Your task to perform on an android device: Search for seafood restaurants on Google Maps Image 0: 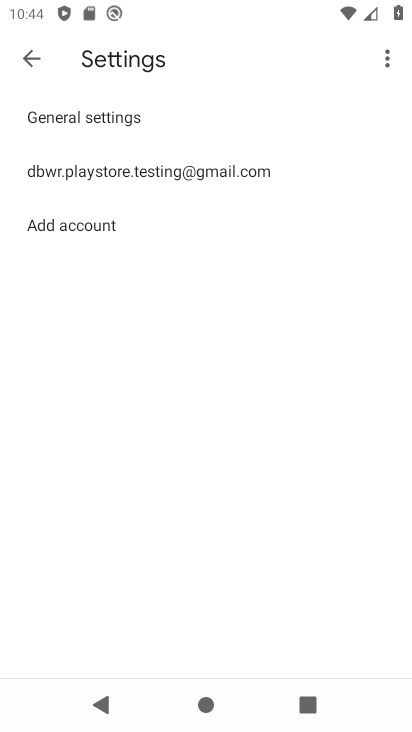
Step 0: press home button
Your task to perform on an android device: Search for seafood restaurants on Google Maps Image 1: 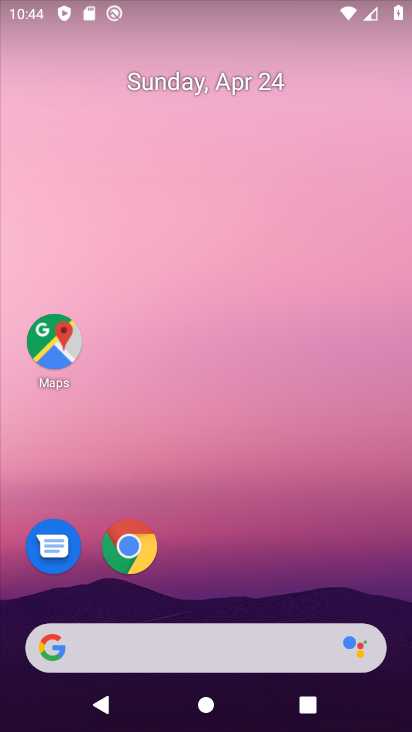
Step 1: click (50, 352)
Your task to perform on an android device: Search for seafood restaurants on Google Maps Image 2: 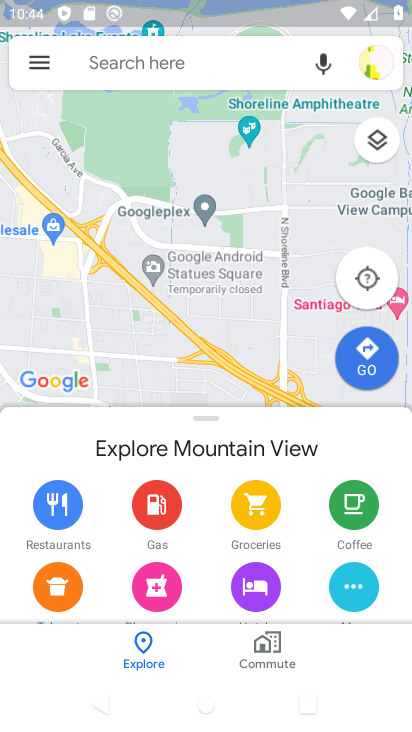
Step 2: click (224, 71)
Your task to perform on an android device: Search for seafood restaurants on Google Maps Image 3: 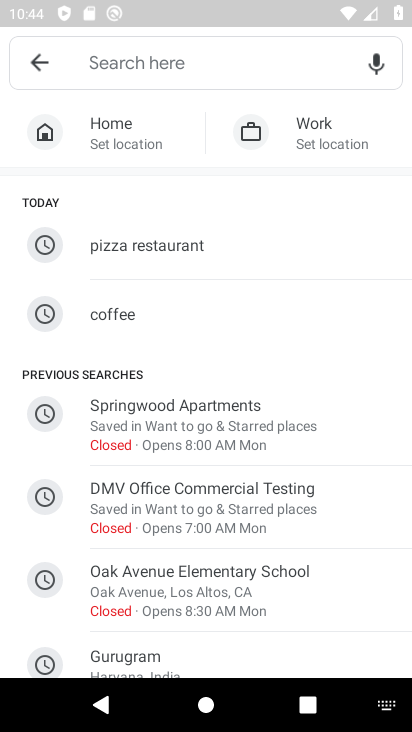
Step 3: type "seafood restaurants"
Your task to perform on an android device: Search for seafood restaurants on Google Maps Image 4: 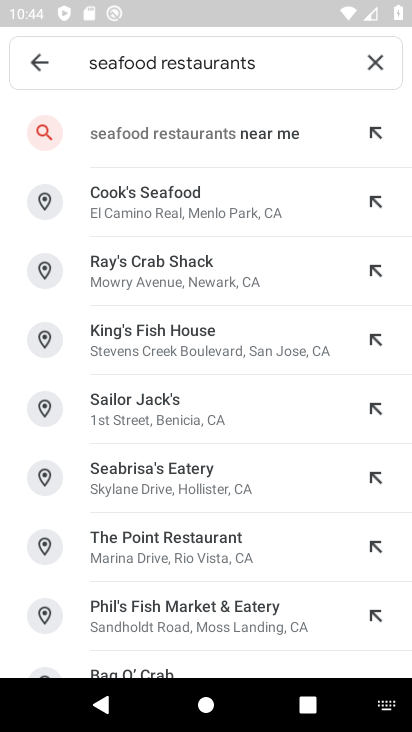
Step 4: task complete